Your task to perform on an android device: Search for Mexican restaurants on Maps Image 0: 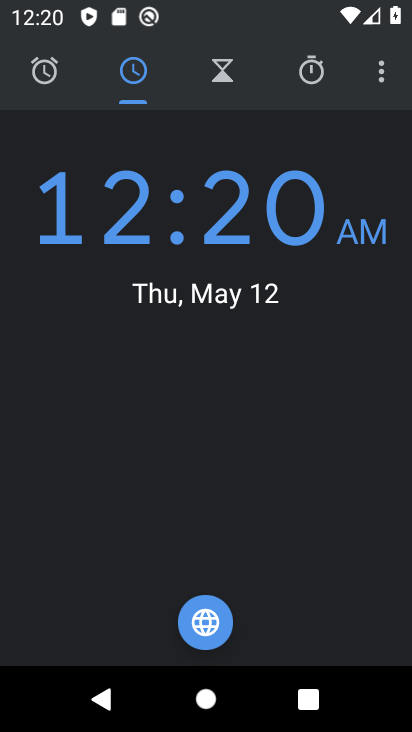
Step 0: press home button
Your task to perform on an android device: Search for Mexican restaurants on Maps Image 1: 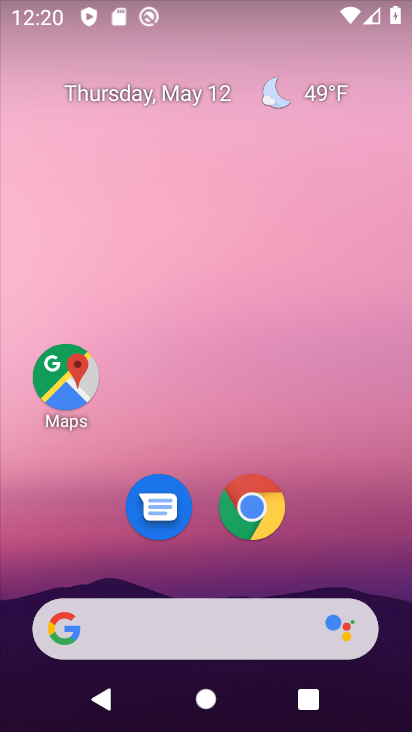
Step 1: drag from (185, 569) to (207, 35)
Your task to perform on an android device: Search for Mexican restaurants on Maps Image 2: 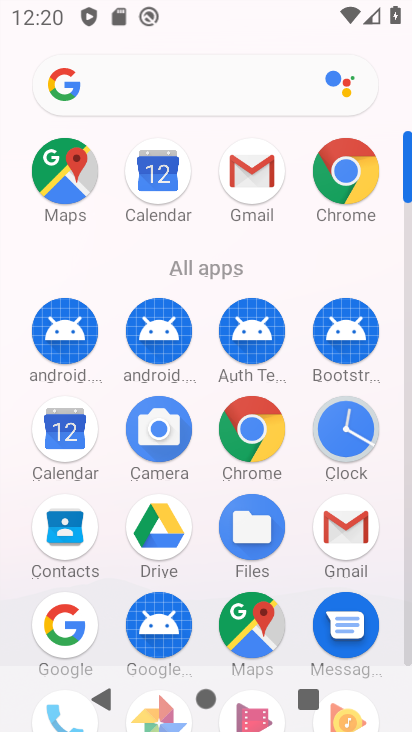
Step 2: click (236, 618)
Your task to perform on an android device: Search for Mexican restaurants on Maps Image 3: 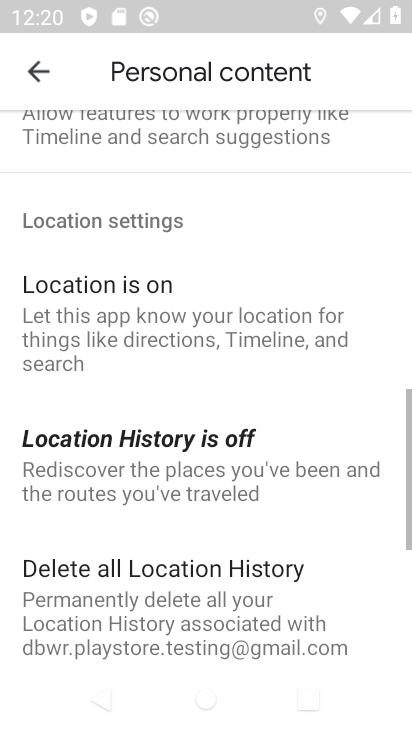
Step 3: click (36, 76)
Your task to perform on an android device: Search for Mexican restaurants on Maps Image 4: 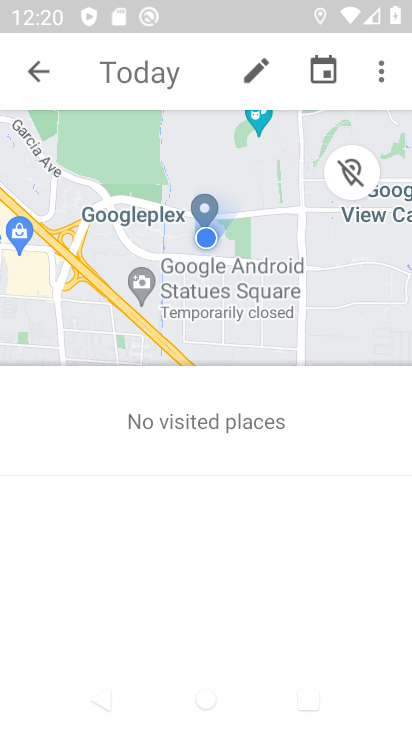
Step 4: click (39, 73)
Your task to perform on an android device: Search for Mexican restaurants on Maps Image 5: 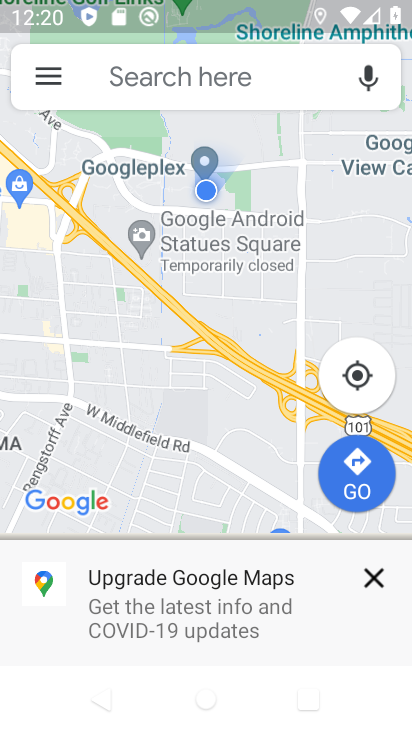
Step 5: click (165, 63)
Your task to perform on an android device: Search for Mexican restaurants on Maps Image 6: 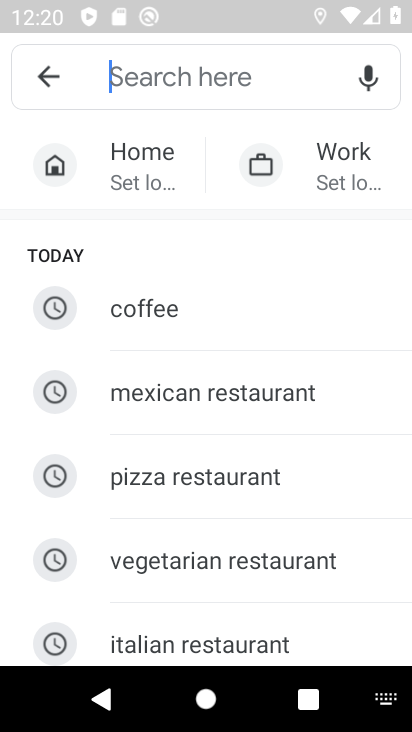
Step 6: type "mexican restaurants"
Your task to perform on an android device: Search for Mexican restaurants on Maps Image 7: 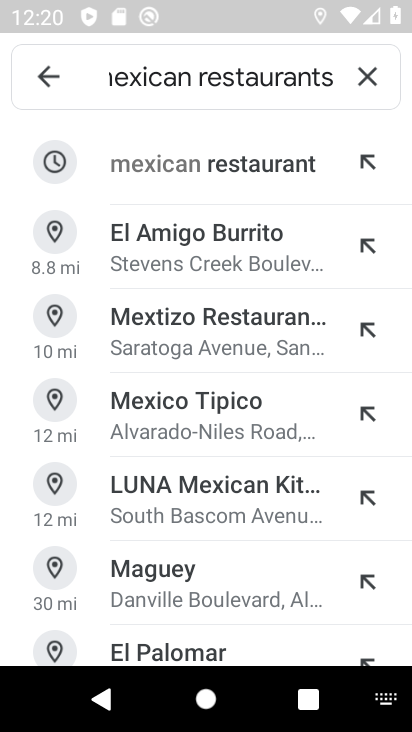
Step 7: click (208, 159)
Your task to perform on an android device: Search for Mexican restaurants on Maps Image 8: 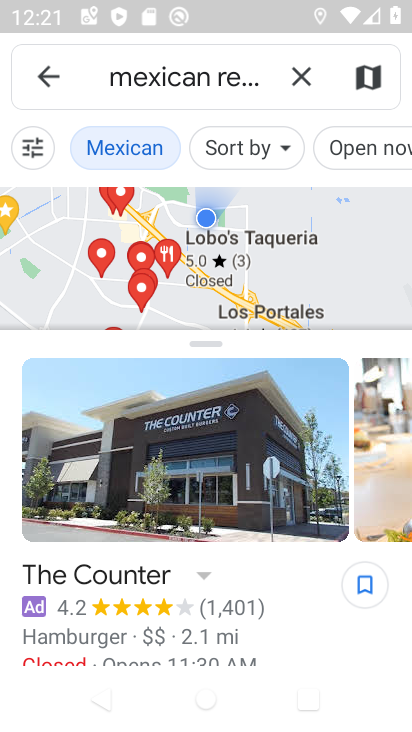
Step 8: task complete